Your task to perform on an android device: toggle javascript in the chrome app Image 0: 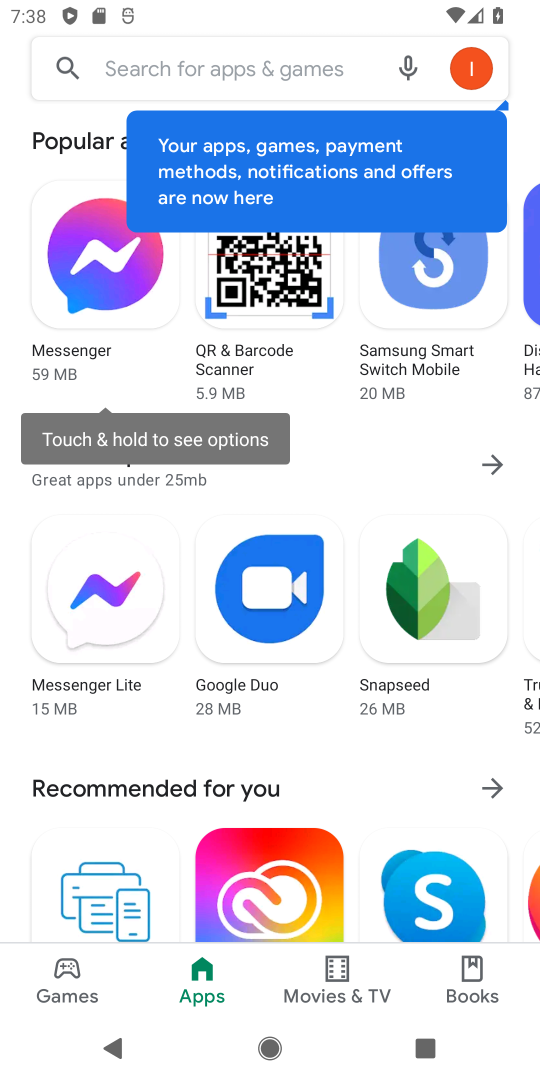
Step 0: press home button
Your task to perform on an android device: toggle javascript in the chrome app Image 1: 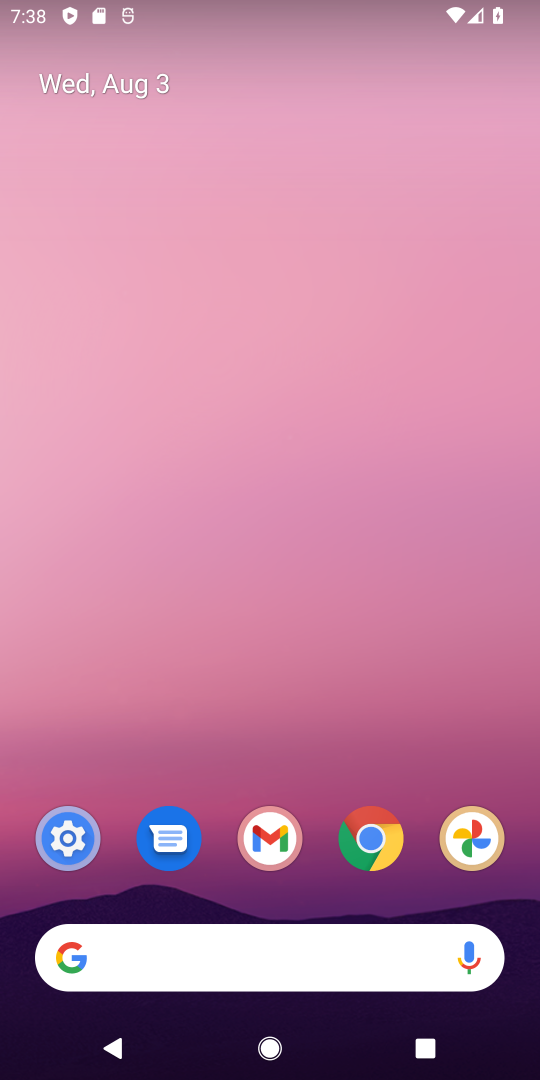
Step 1: click (371, 837)
Your task to perform on an android device: toggle javascript in the chrome app Image 2: 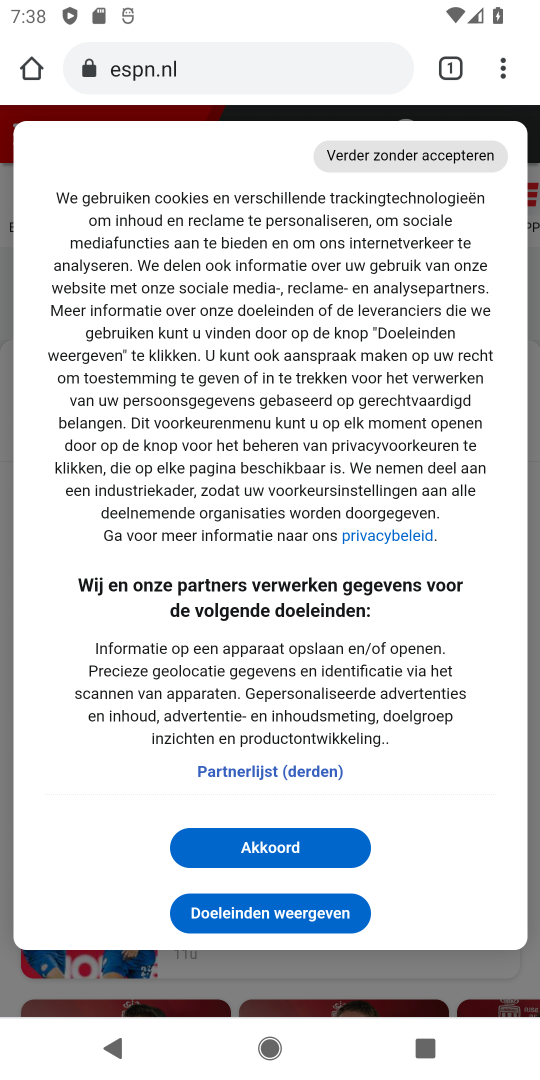
Step 2: click (505, 57)
Your task to perform on an android device: toggle javascript in the chrome app Image 3: 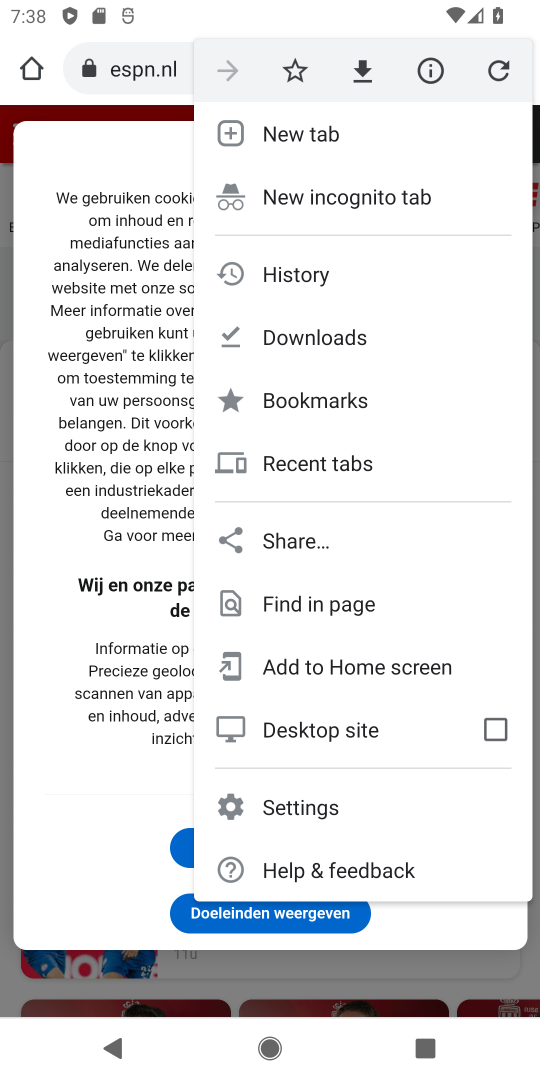
Step 3: click (281, 807)
Your task to perform on an android device: toggle javascript in the chrome app Image 4: 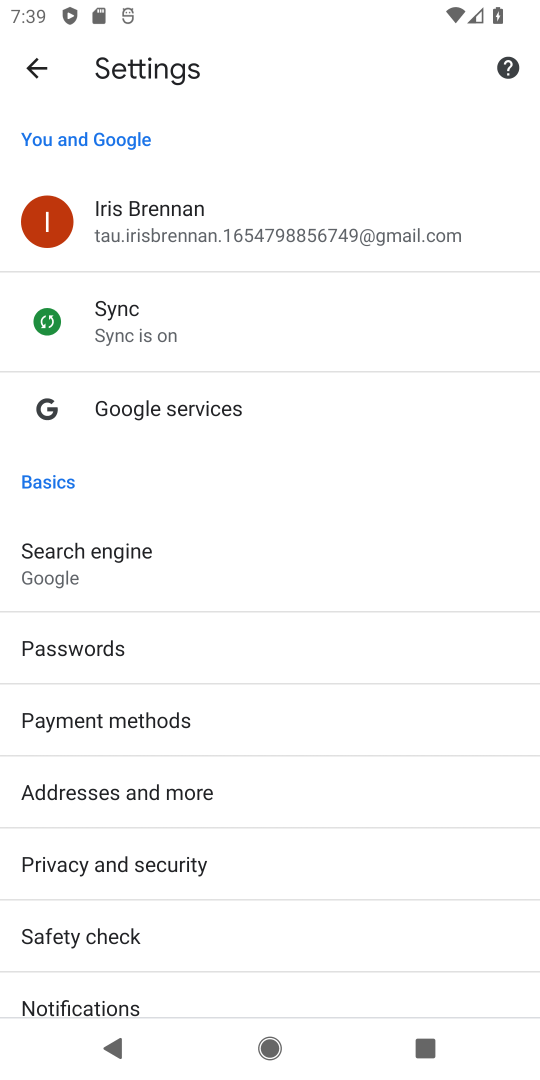
Step 4: drag from (158, 871) to (158, 507)
Your task to perform on an android device: toggle javascript in the chrome app Image 5: 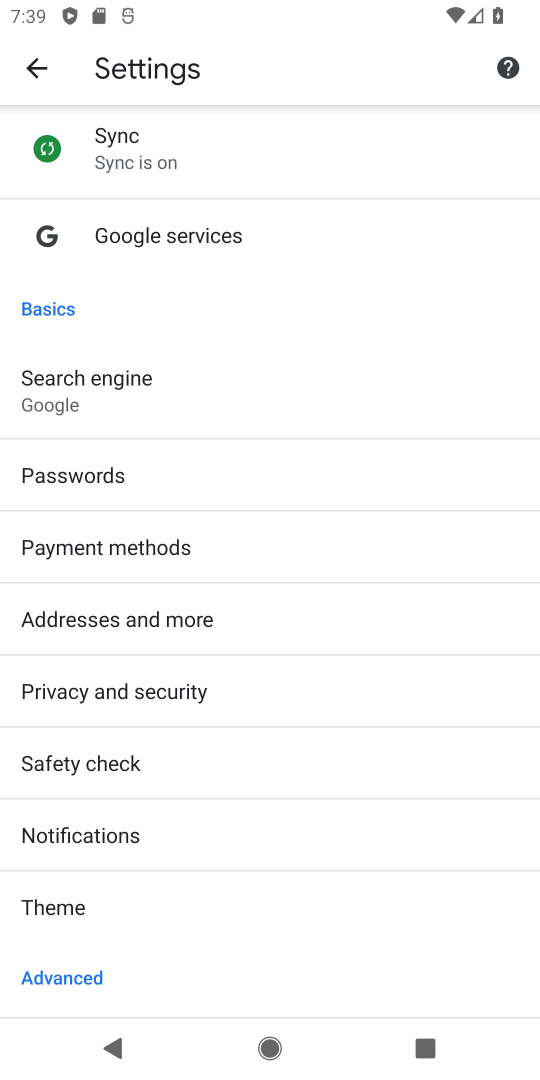
Step 5: drag from (147, 737) to (212, 322)
Your task to perform on an android device: toggle javascript in the chrome app Image 6: 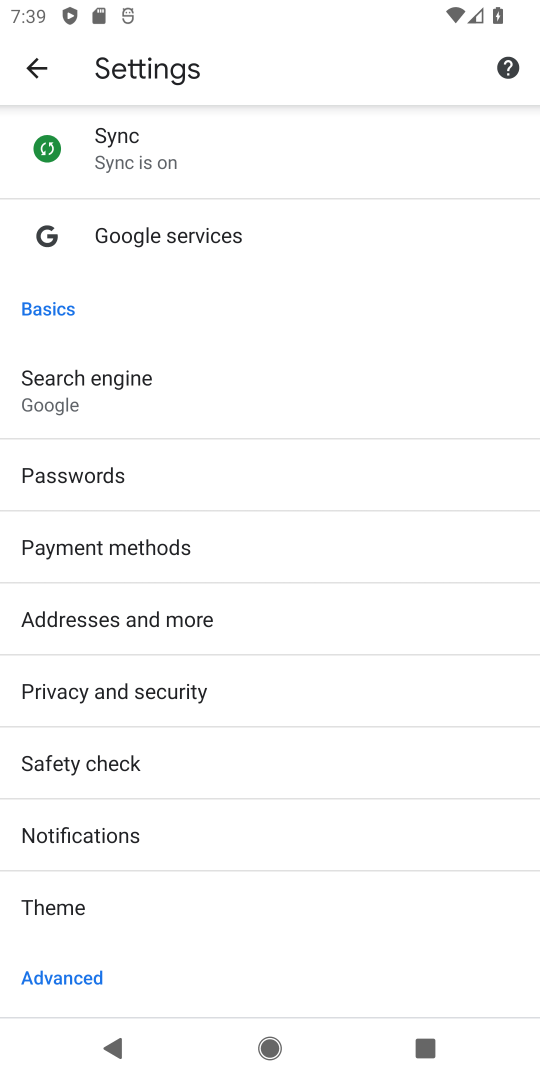
Step 6: drag from (103, 849) to (233, 222)
Your task to perform on an android device: toggle javascript in the chrome app Image 7: 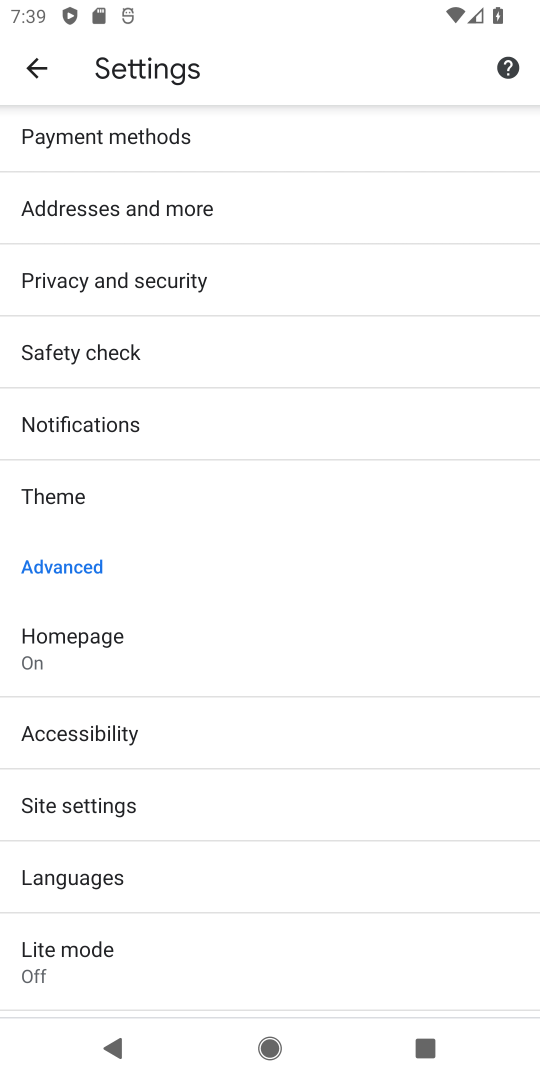
Step 7: click (60, 797)
Your task to perform on an android device: toggle javascript in the chrome app Image 8: 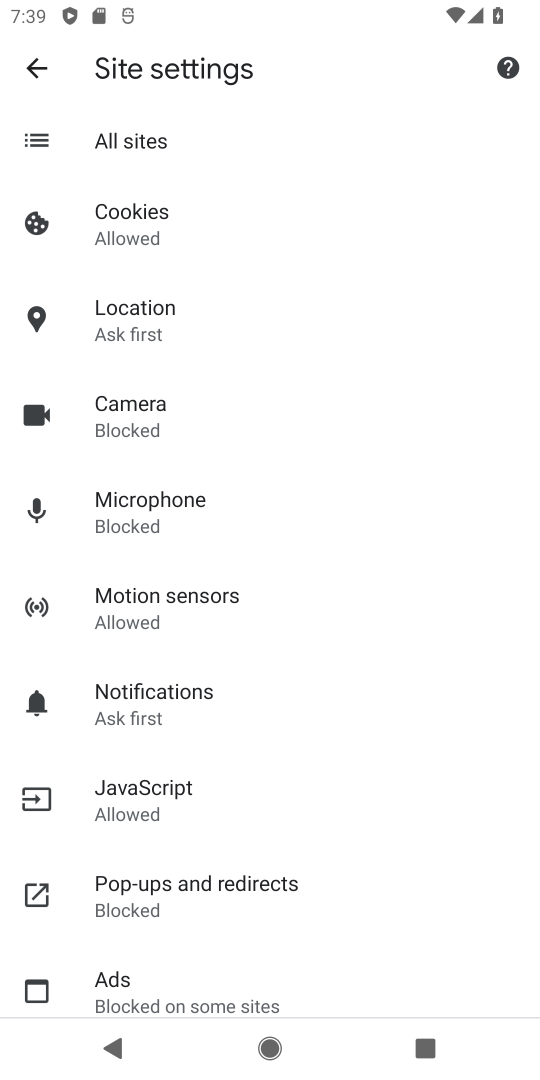
Step 8: click (148, 799)
Your task to perform on an android device: toggle javascript in the chrome app Image 9: 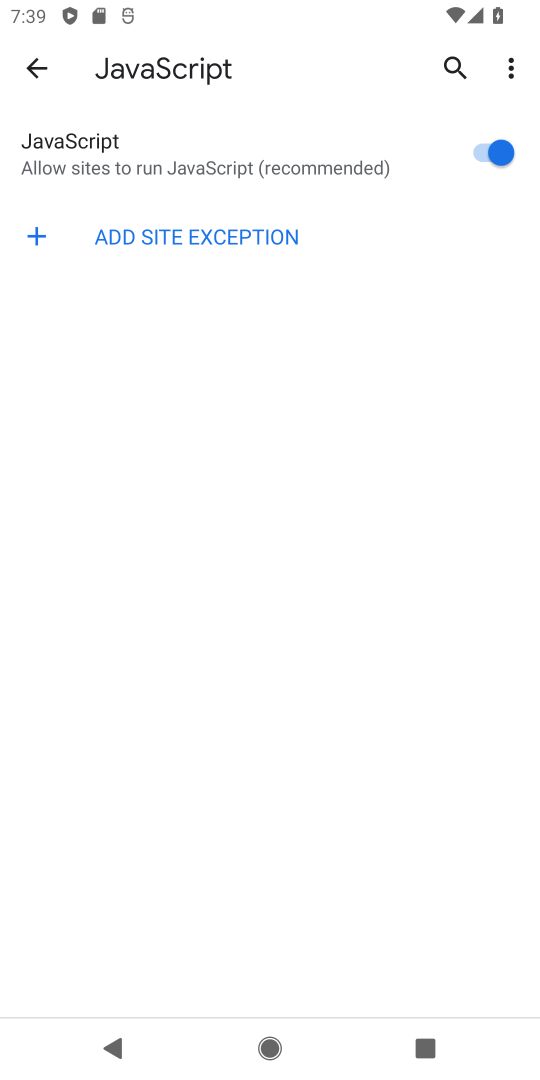
Step 9: click (490, 145)
Your task to perform on an android device: toggle javascript in the chrome app Image 10: 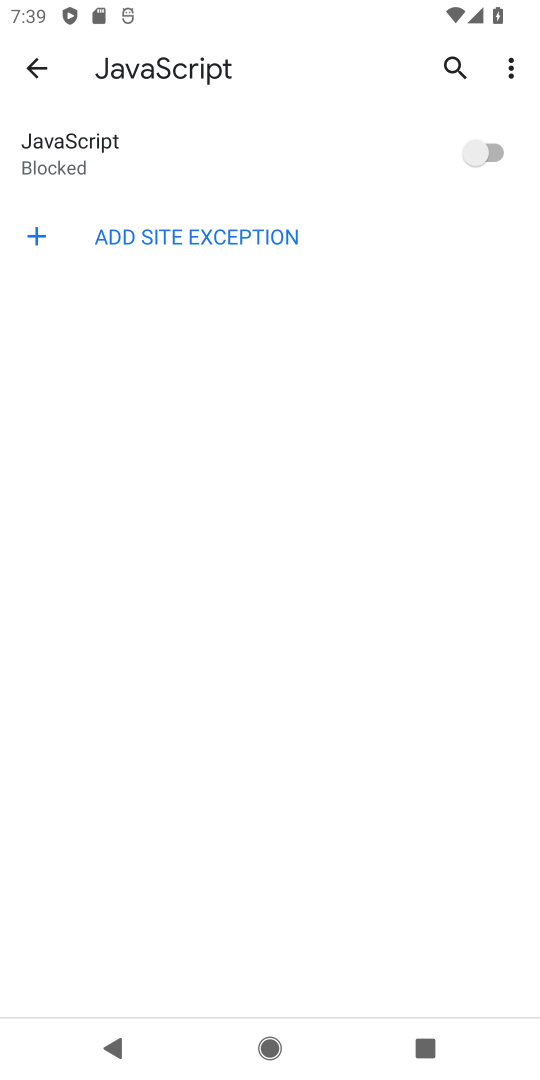
Step 10: task complete